Your task to perform on an android device: Find coffee shops on Maps Image 0: 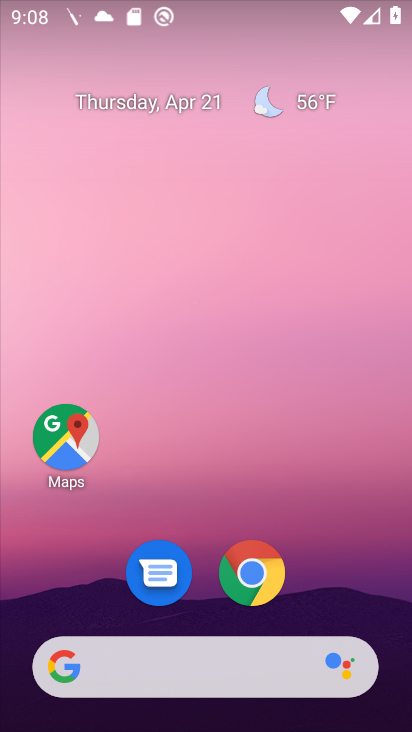
Step 0: click (74, 444)
Your task to perform on an android device: Find coffee shops on Maps Image 1: 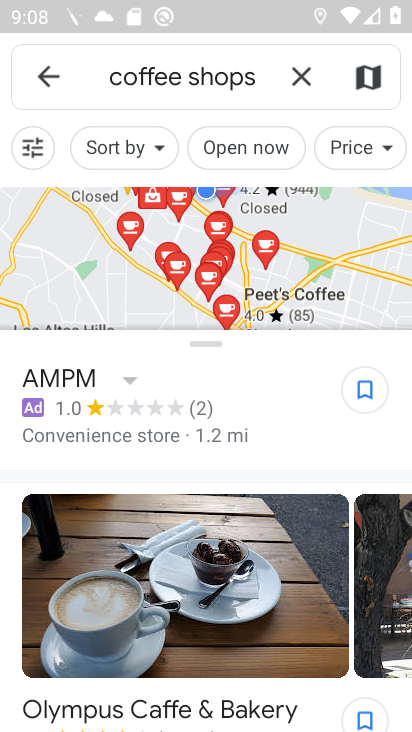
Step 1: click (306, 81)
Your task to perform on an android device: Find coffee shops on Maps Image 2: 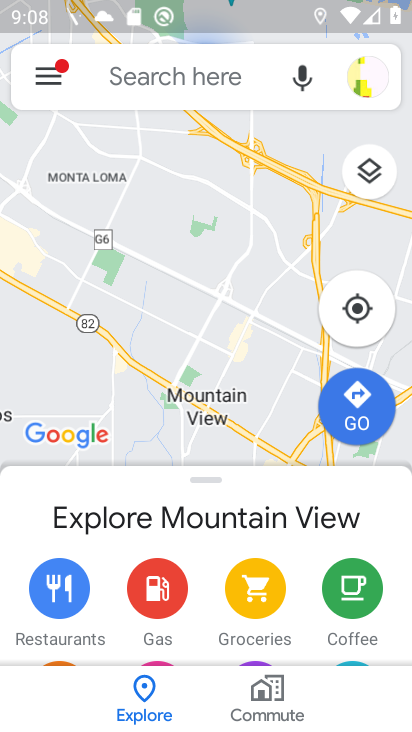
Step 2: click (142, 82)
Your task to perform on an android device: Find coffee shops on Maps Image 3: 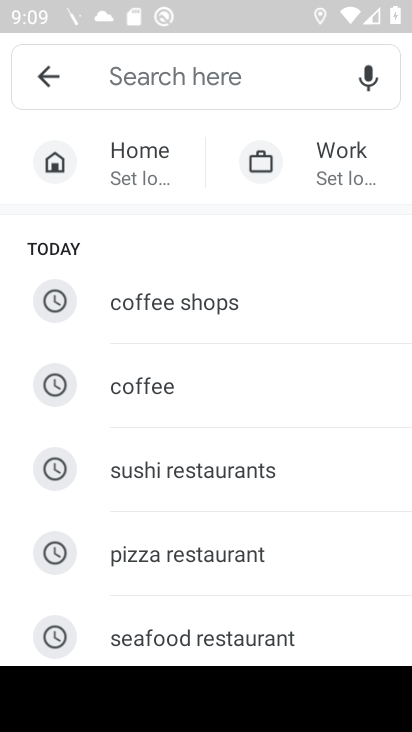
Step 3: type "coffee shops"
Your task to perform on an android device: Find coffee shops on Maps Image 4: 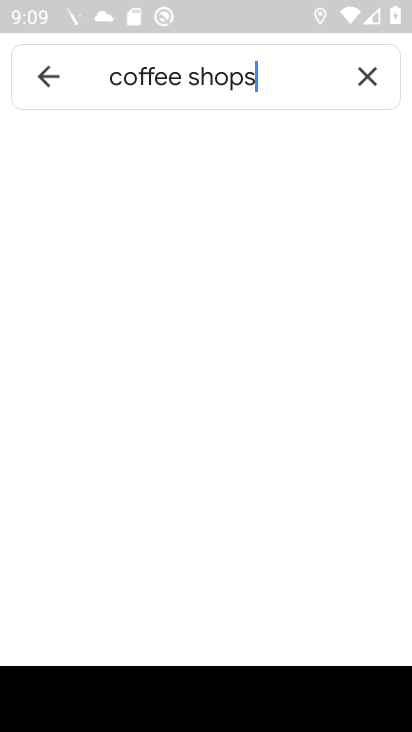
Step 4: type ""
Your task to perform on an android device: Find coffee shops on Maps Image 5: 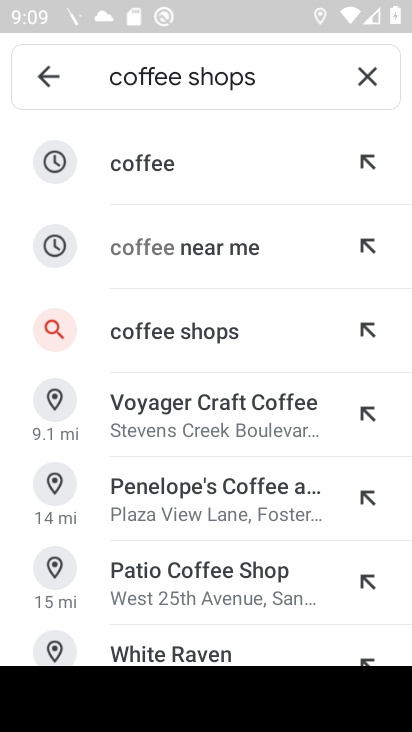
Step 5: click (171, 330)
Your task to perform on an android device: Find coffee shops on Maps Image 6: 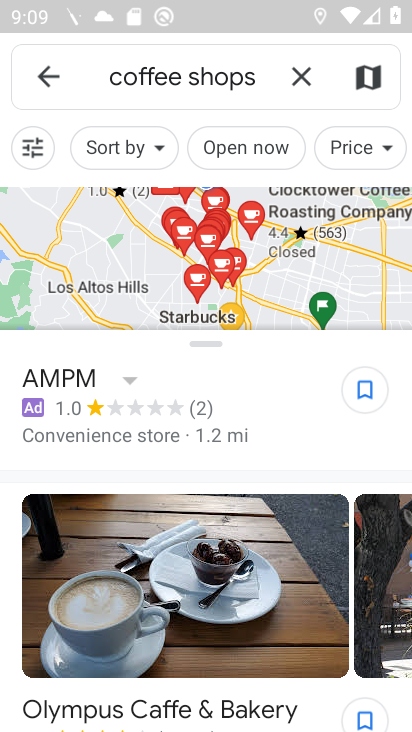
Step 6: task complete